Your task to perform on an android device: find snoozed emails in the gmail app Image 0: 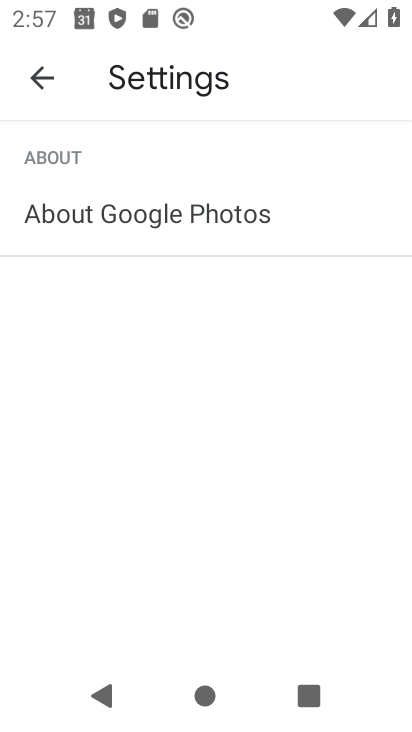
Step 0: press home button
Your task to perform on an android device: find snoozed emails in the gmail app Image 1: 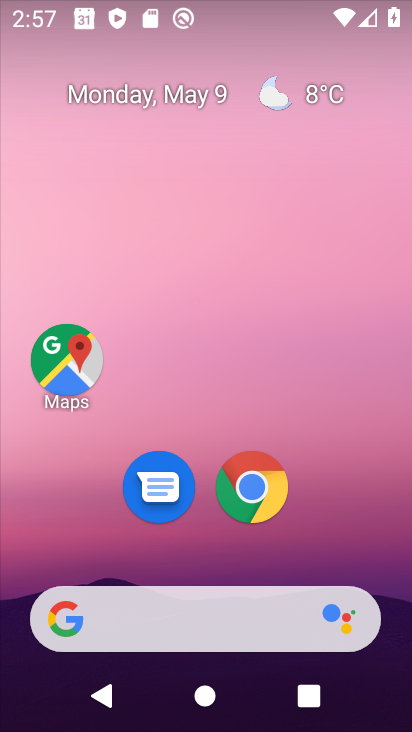
Step 1: drag from (203, 574) to (211, 103)
Your task to perform on an android device: find snoozed emails in the gmail app Image 2: 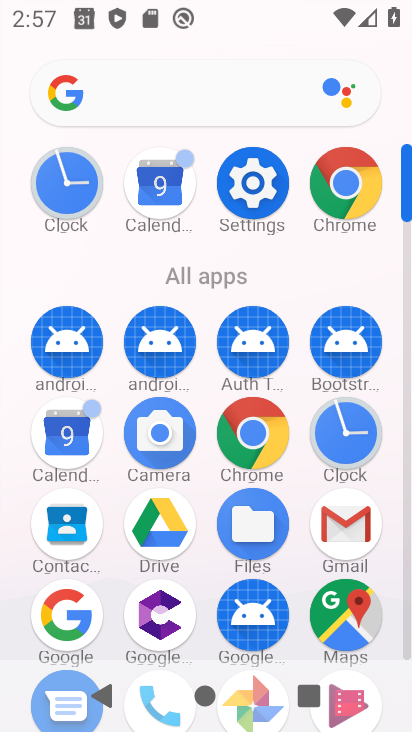
Step 2: click (343, 514)
Your task to perform on an android device: find snoozed emails in the gmail app Image 3: 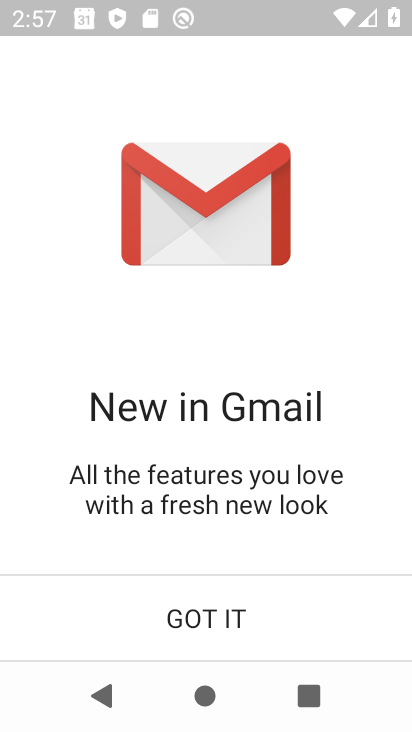
Step 3: click (213, 629)
Your task to perform on an android device: find snoozed emails in the gmail app Image 4: 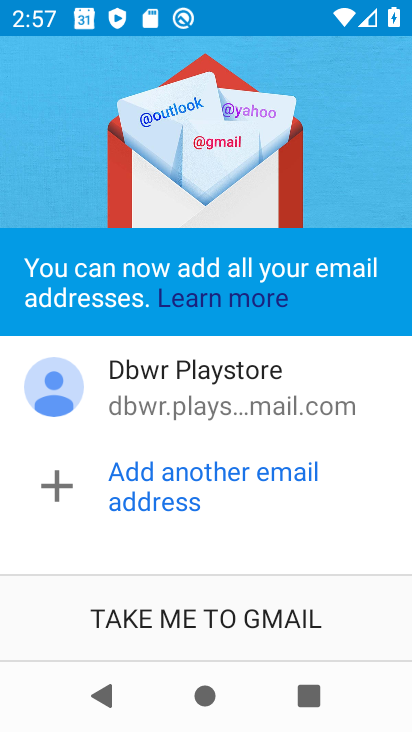
Step 4: press home button
Your task to perform on an android device: find snoozed emails in the gmail app Image 5: 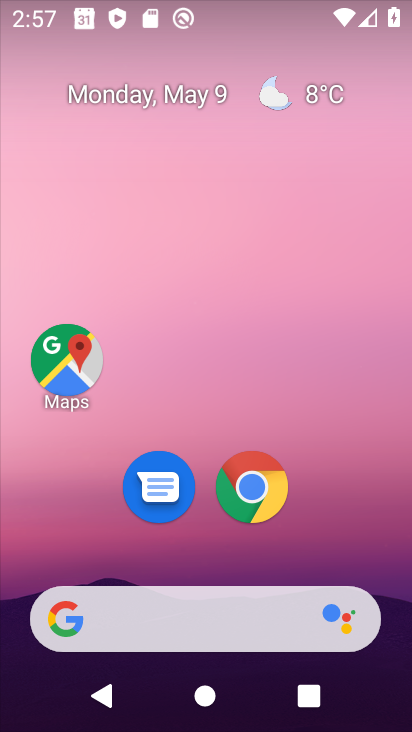
Step 5: drag from (195, 550) to (207, 7)
Your task to perform on an android device: find snoozed emails in the gmail app Image 6: 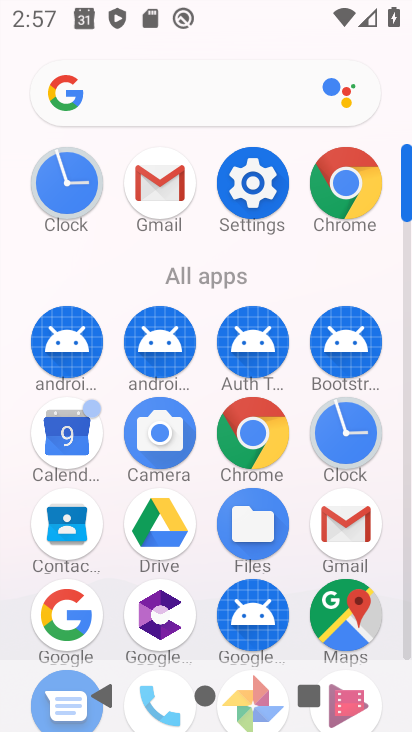
Step 6: click (347, 515)
Your task to perform on an android device: find snoozed emails in the gmail app Image 7: 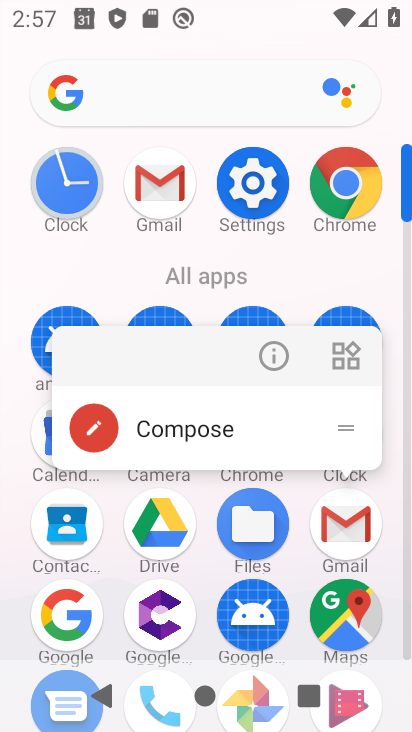
Step 7: click (341, 521)
Your task to perform on an android device: find snoozed emails in the gmail app Image 8: 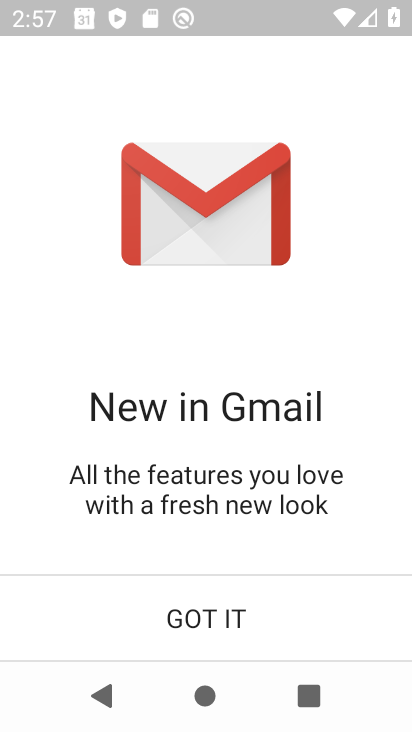
Step 8: click (203, 623)
Your task to perform on an android device: find snoozed emails in the gmail app Image 9: 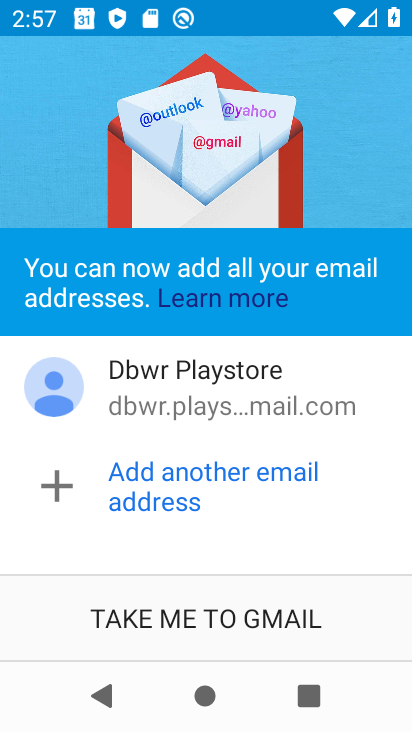
Step 9: click (200, 632)
Your task to perform on an android device: find snoozed emails in the gmail app Image 10: 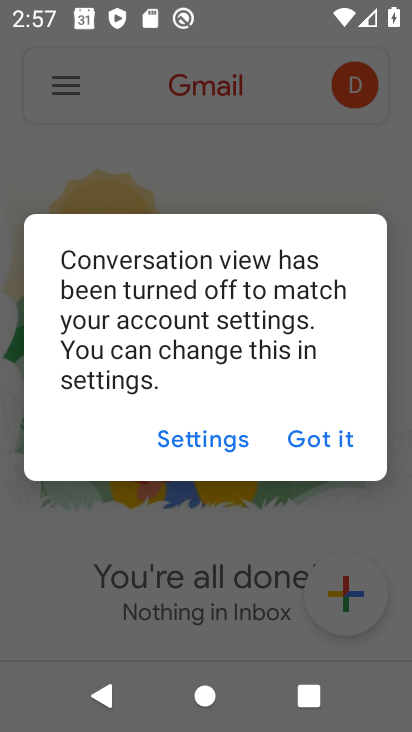
Step 10: click (310, 440)
Your task to perform on an android device: find snoozed emails in the gmail app Image 11: 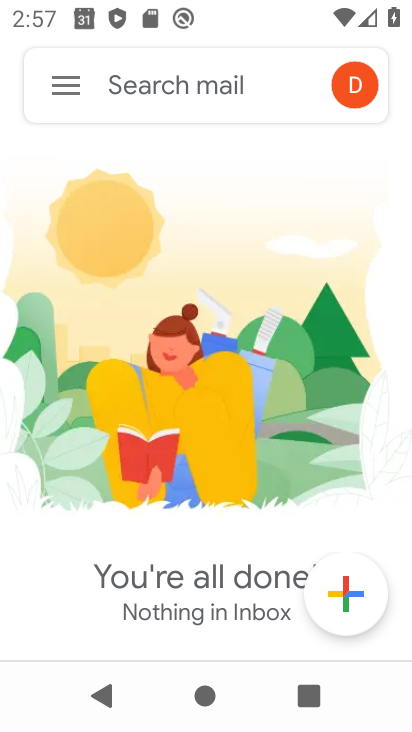
Step 11: click (70, 90)
Your task to perform on an android device: find snoozed emails in the gmail app Image 12: 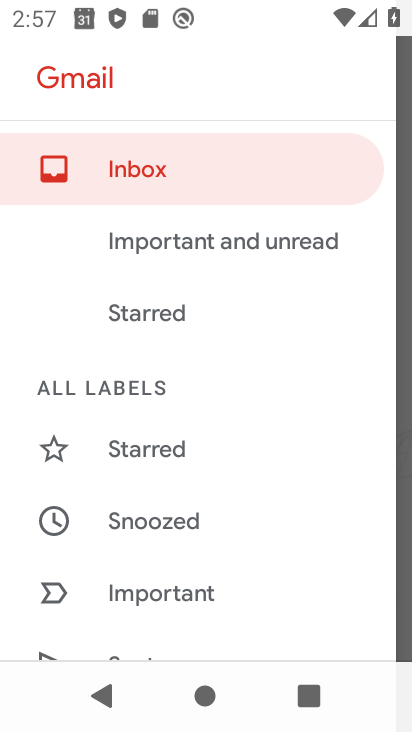
Step 12: click (205, 520)
Your task to perform on an android device: find snoozed emails in the gmail app Image 13: 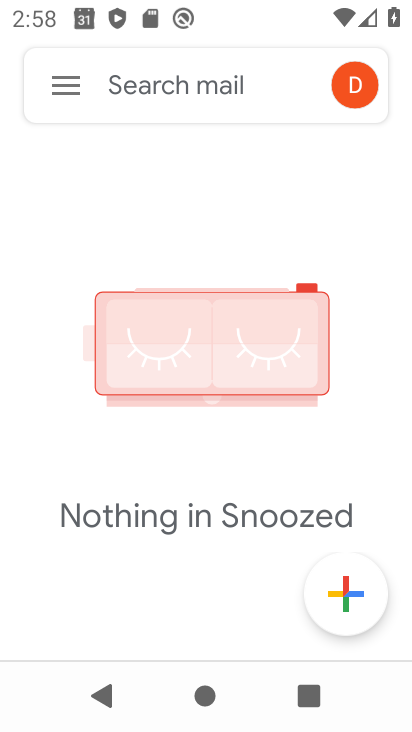
Step 13: task complete